Your task to perform on an android device: check android version Image 0: 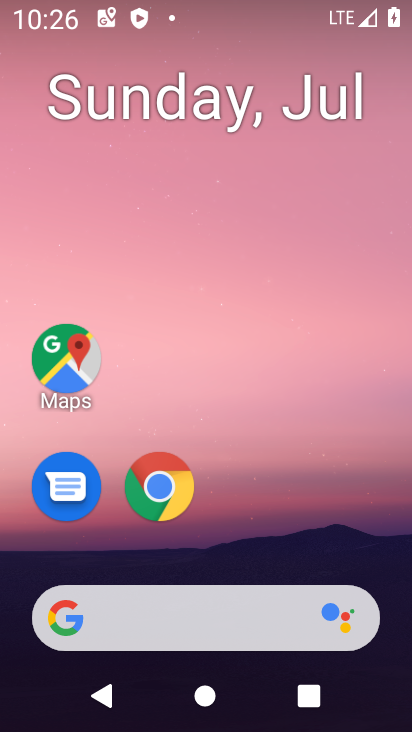
Step 0: press home button
Your task to perform on an android device: check android version Image 1: 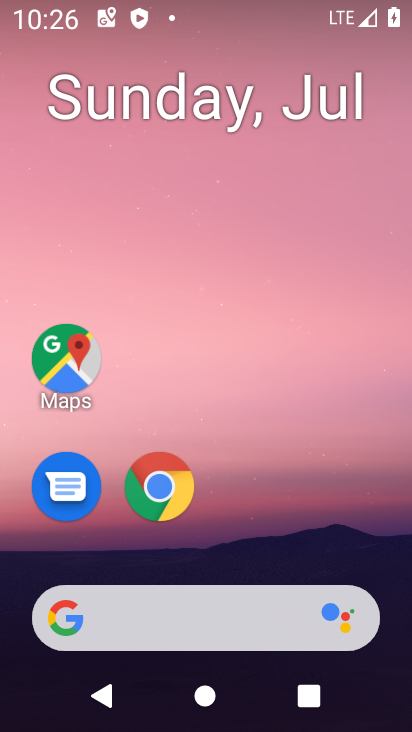
Step 1: drag from (371, 508) to (378, 112)
Your task to perform on an android device: check android version Image 2: 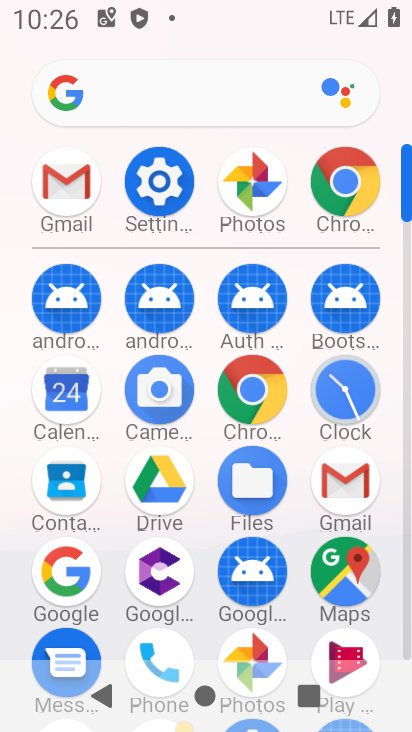
Step 2: click (166, 199)
Your task to perform on an android device: check android version Image 3: 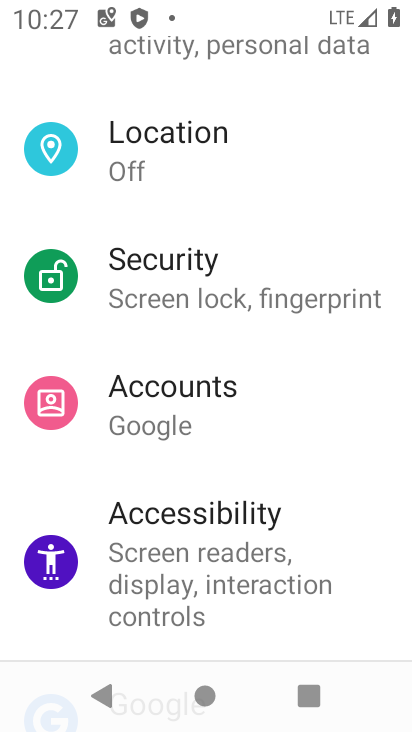
Step 3: drag from (359, 163) to (364, 336)
Your task to perform on an android device: check android version Image 4: 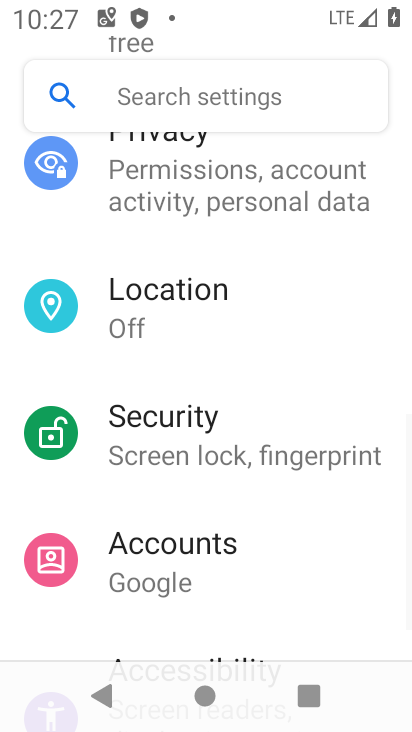
Step 4: drag from (385, 145) to (382, 364)
Your task to perform on an android device: check android version Image 5: 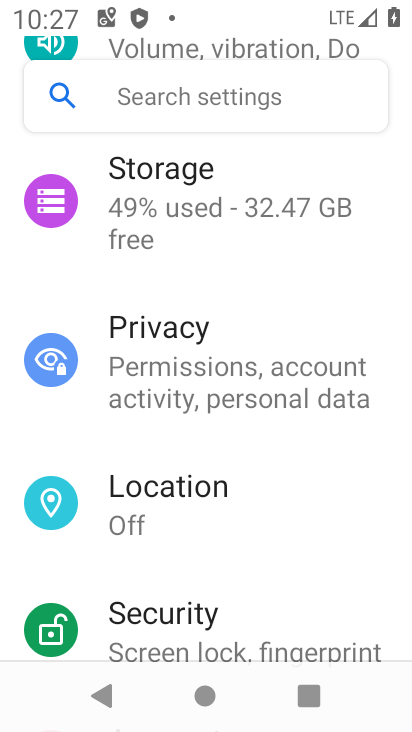
Step 5: drag from (388, 161) to (381, 329)
Your task to perform on an android device: check android version Image 6: 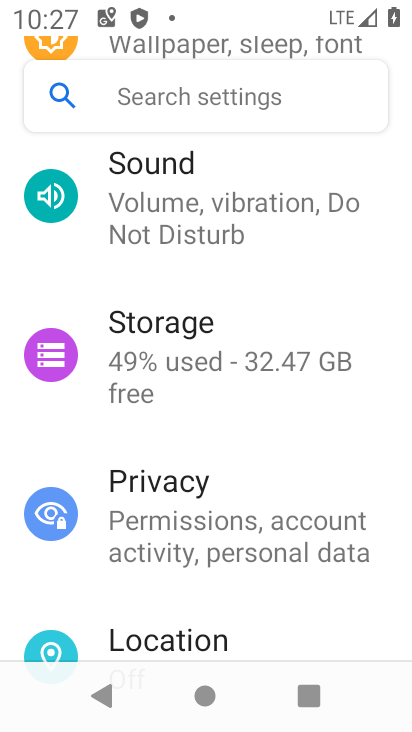
Step 6: drag from (381, 160) to (374, 340)
Your task to perform on an android device: check android version Image 7: 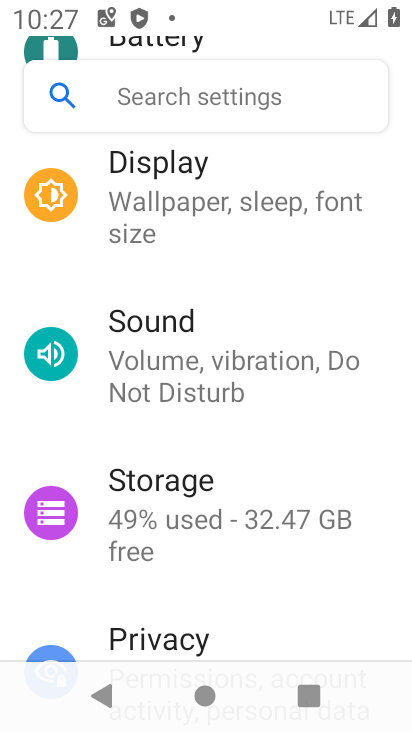
Step 7: drag from (375, 153) to (375, 301)
Your task to perform on an android device: check android version Image 8: 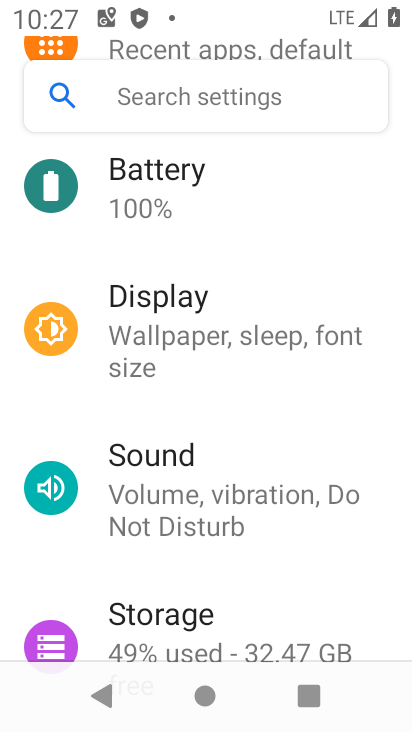
Step 8: drag from (378, 164) to (383, 315)
Your task to perform on an android device: check android version Image 9: 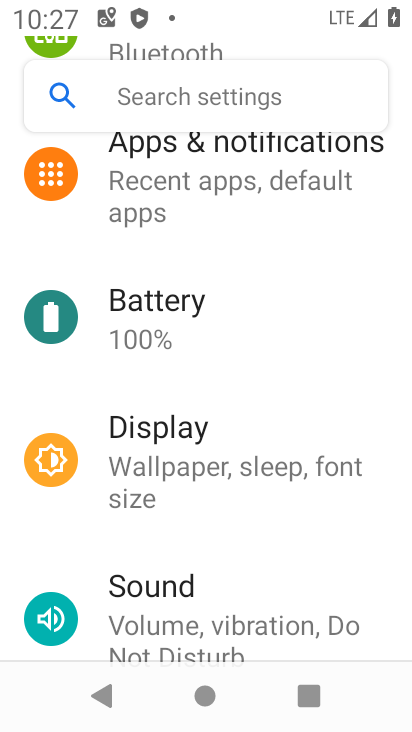
Step 9: drag from (379, 165) to (353, 387)
Your task to perform on an android device: check android version Image 10: 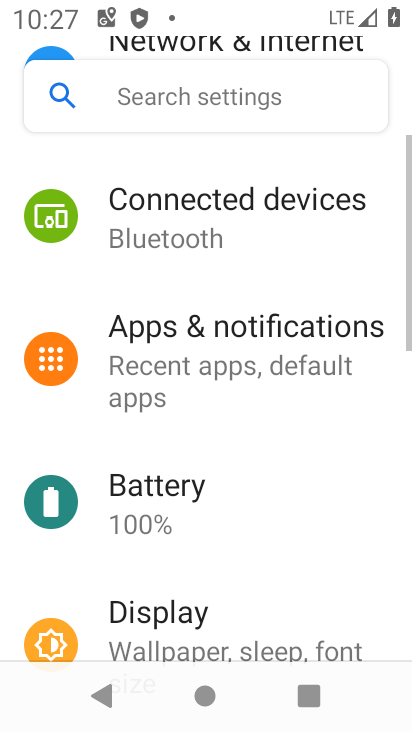
Step 10: drag from (344, 448) to (345, 295)
Your task to perform on an android device: check android version Image 11: 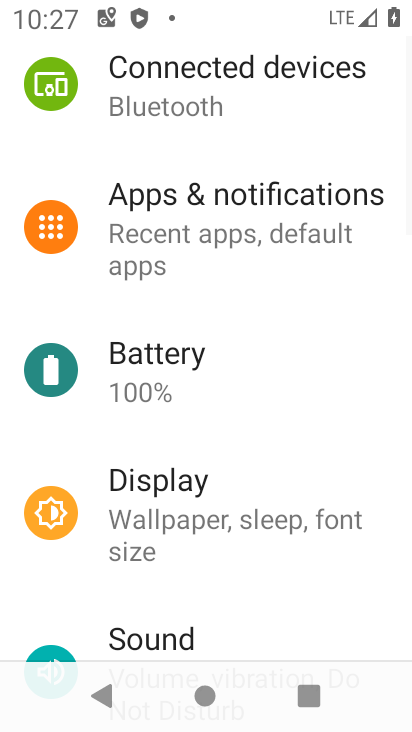
Step 11: drag from (337, 436) to (346, 304)
Your task to perform on an android device: check android version Image 12: 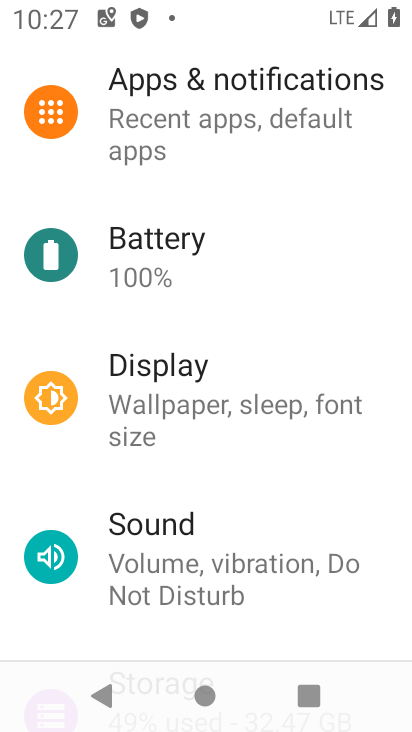
Step 12: drag from (343, 477) to (353, 277)
Your task to perform on an android device: check android version Image 13: 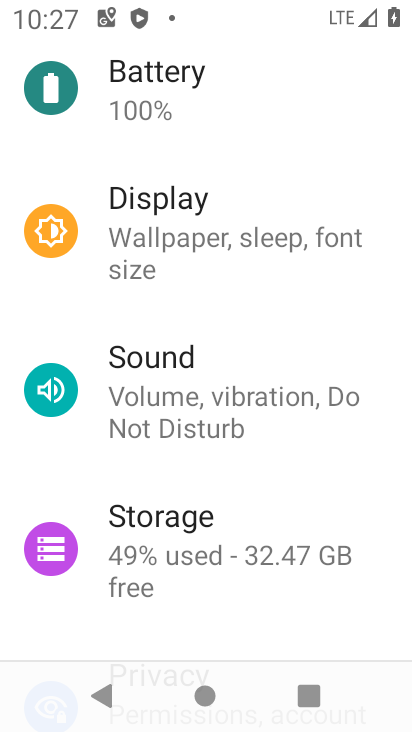
Step 13: drag from (346, 484) to (347, 307)
Your task to perform on an android device: check android version Image 14: 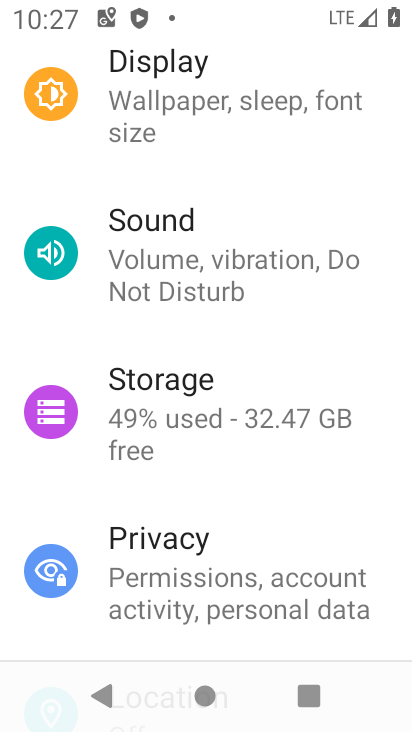
Step 14: drag from (338, 499) to (341, 381)
Your task to perform on an android device: check android version Image 15: 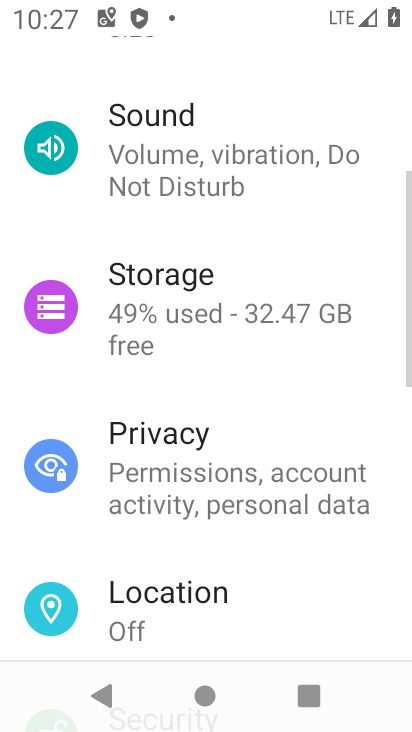
Step 15: drag from (333, 556) to (342, 417)
Your task to perform on an android device: check android version Image 16: 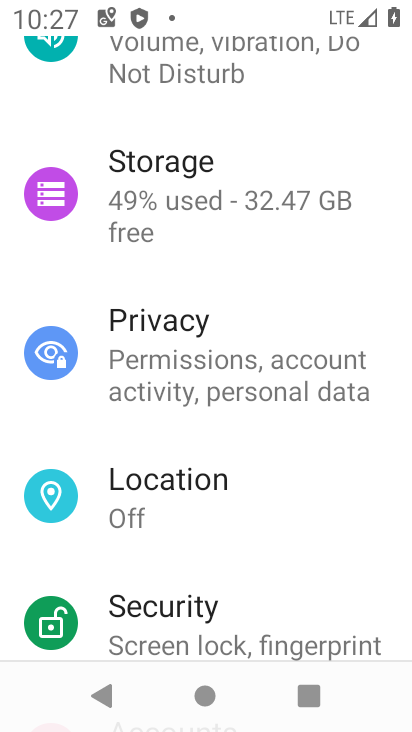
Step 16: drag from (327, 584) to (326, 426)
Your task to perform on an android device: check android version Image 17: 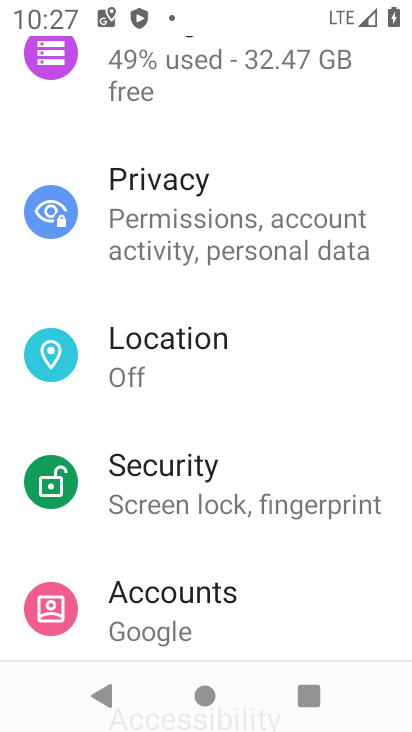
Step 17: drag from (340, 583) to (346, 444)
Your task to perform on an android device: check android version Image 18: 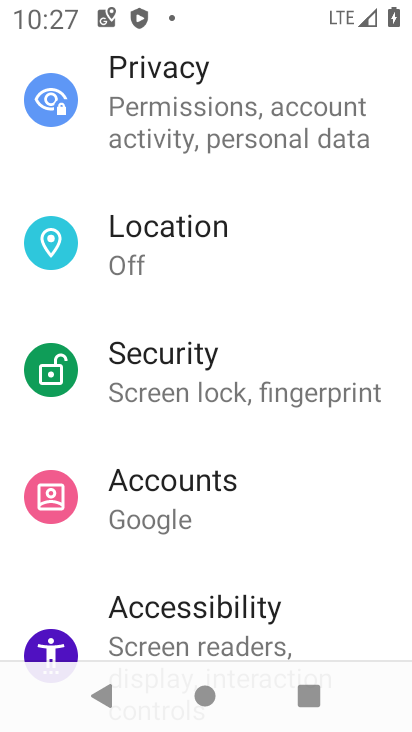
Step 18: drag from (335, 608) to (340, 464)
Your task to perform on an android device: check android version Image 19: 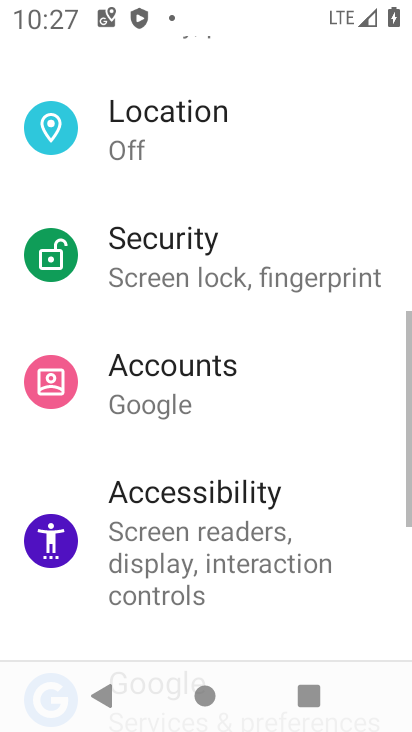
Step 19: drag from (353, 586) to (349, 373)
Your task to perform on an android device: check android version Image 20: 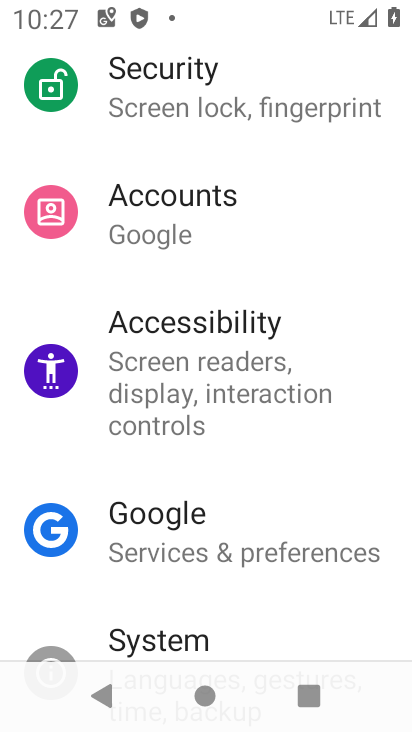
Step 20: drag from (339, 622) to (335, 433)
Your task to perform on an android device: check android version Image 21: 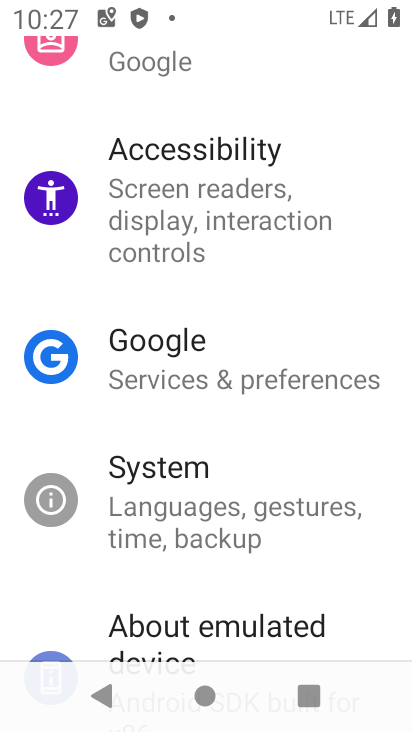
Step 21: click (316, 528)
Your task to perform on an android device: check android version Image 22: 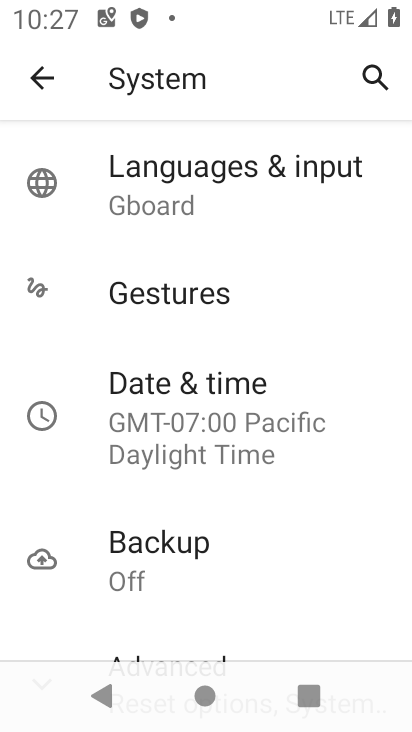
Step 22: task complete